Your task to perform on an android device: open app "Microsoft Excel" (install if not already installed) and enter user name: "kidnappers@icloud.com" and password: "Bessemerizes" Image 0: 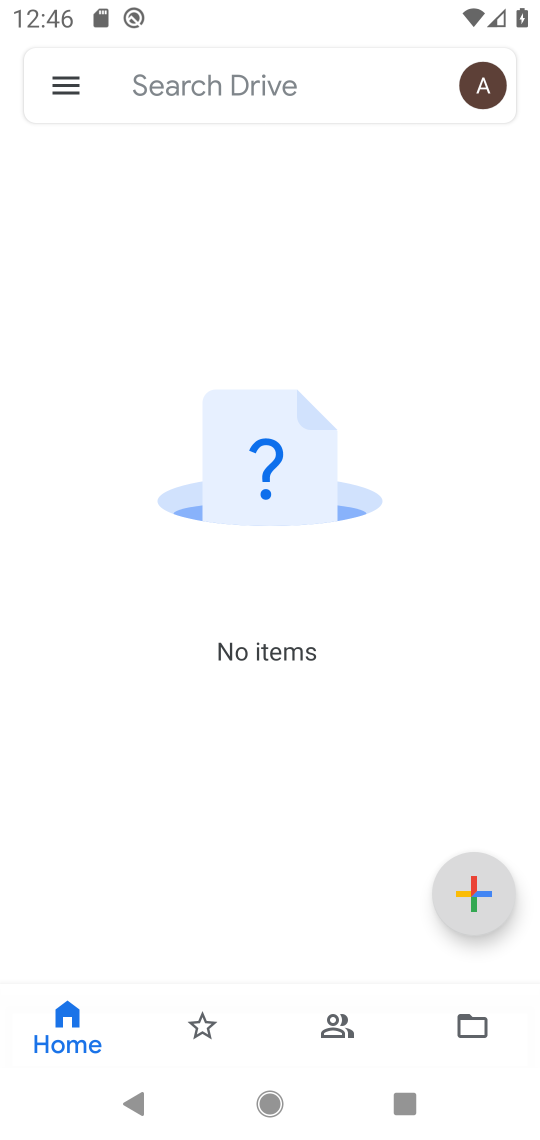
Step 0: press home button
Your task to perform on an android device: open app "Microsoft Excel" (install if not already installed) and enter user name: "kidnappers@icloud.com" and password: "Bessemerizes" Image 1: 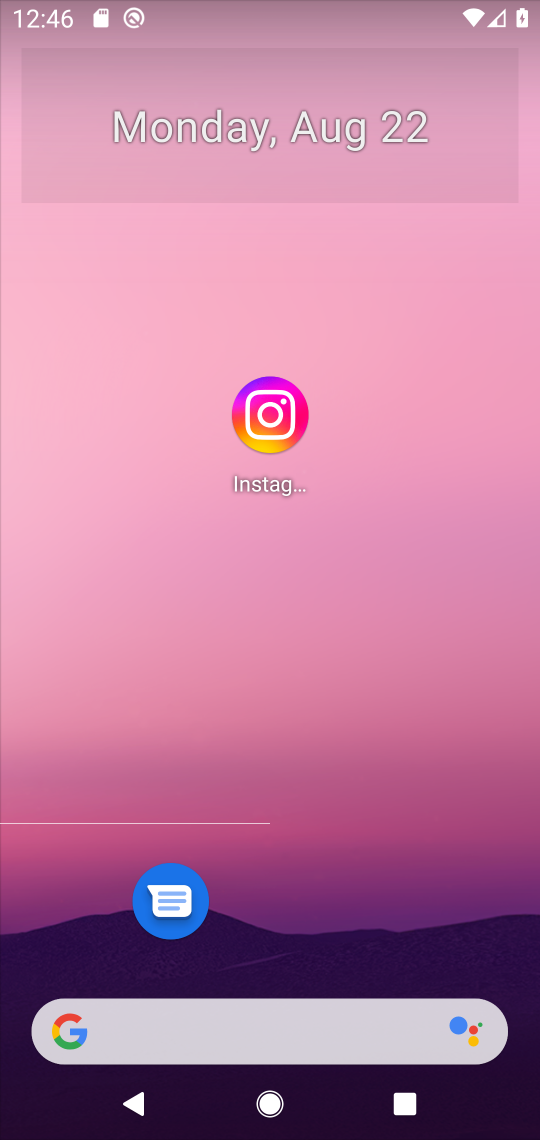
Step 1: drag from (313, 918) to (309, 175)
Your task to perform on an android device: open app "Microsoft Excel" (install if not already installed) and enter user name: "kidnappers@icloud.com" and password: "Bessemerizes" Image 2: 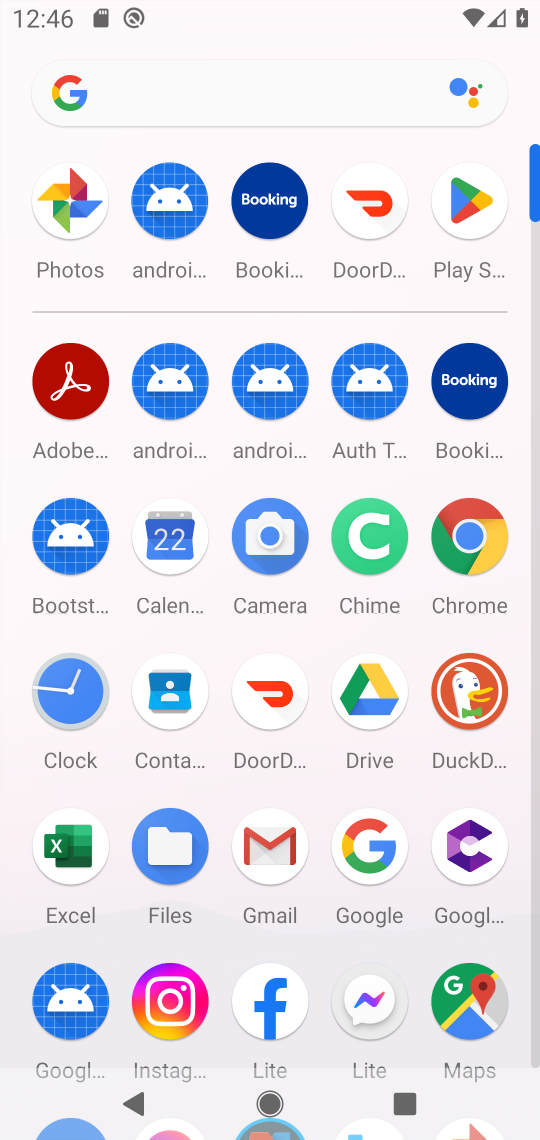
Step 2: click (447, 180)
Your task to perform on an android device: open app "Microsoft Excel" (install if not already installed) and enter user name: "kidnappers@icloud.com" and password: "Bessemerizes" Image 3: 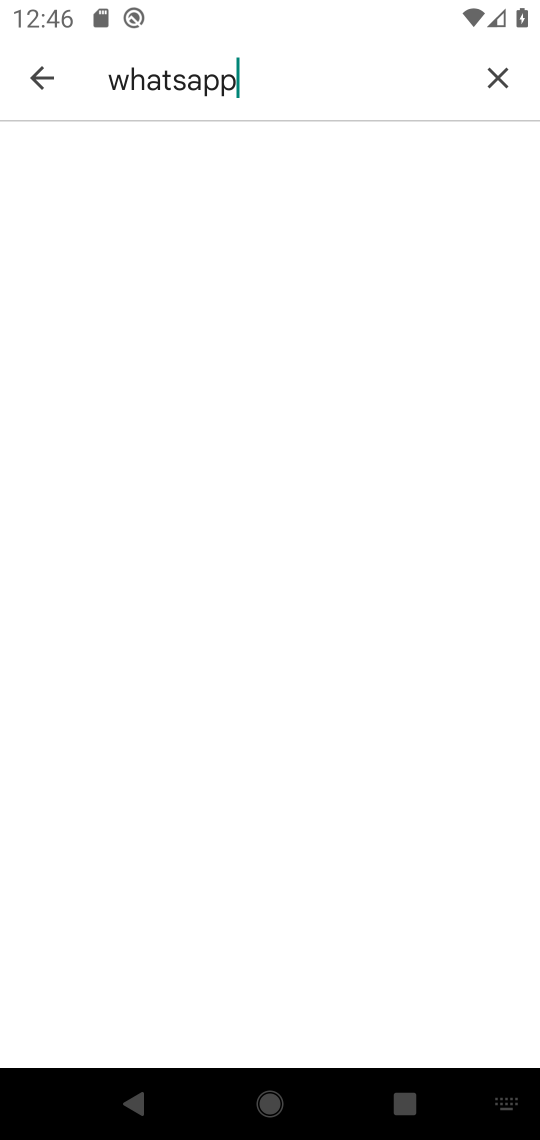
Step 3: click (499, 64)
Your task to perform on an android device: open app "Microsoft Excel" (install if not already installed) and enter user name: "kidnappers@icloud.com" and password: "Bessemerizes" Image 4: 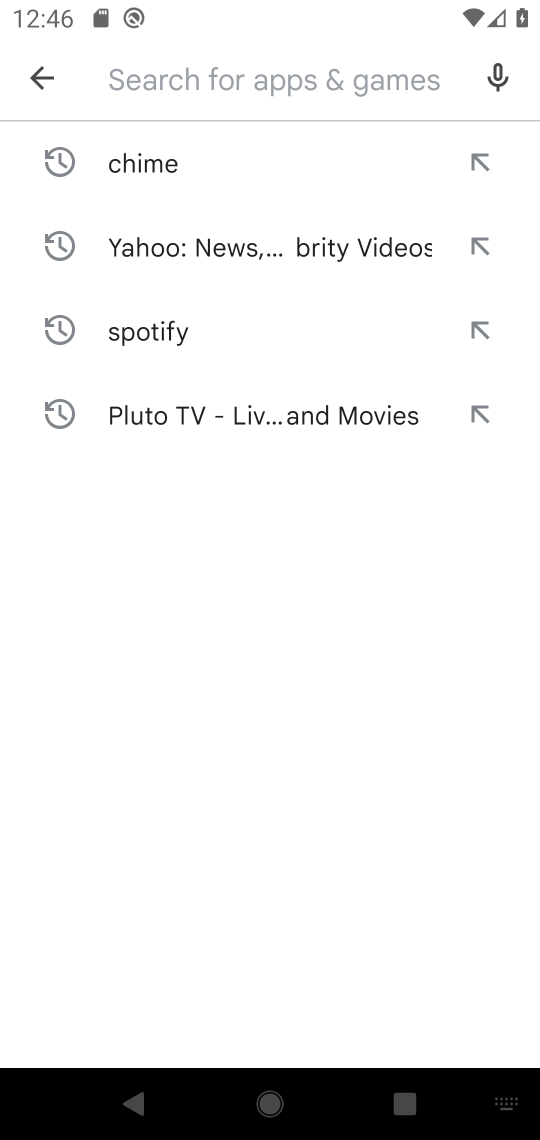
Step 4: type "microsoft excel"
Your task to perform on an android device: open app "Microsoft Excel" (install if not already installed) and enter user name: "kidnappers@icloud.com" and password: "Bessemerizes" Image 5: 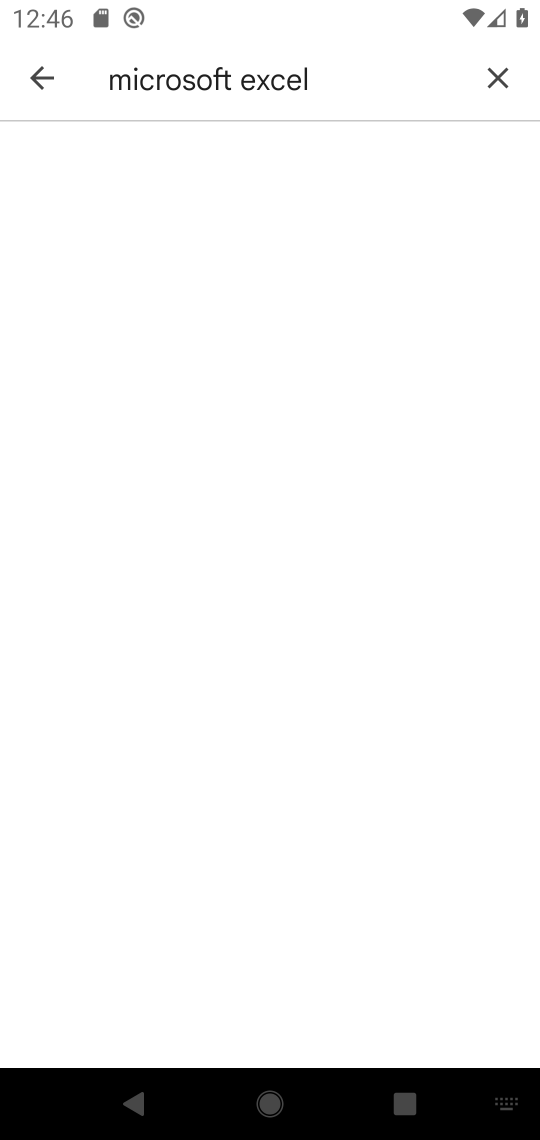
Step 5: task complete